Your task to perform on an android device: turn pop-ups on in chrome Image 0: 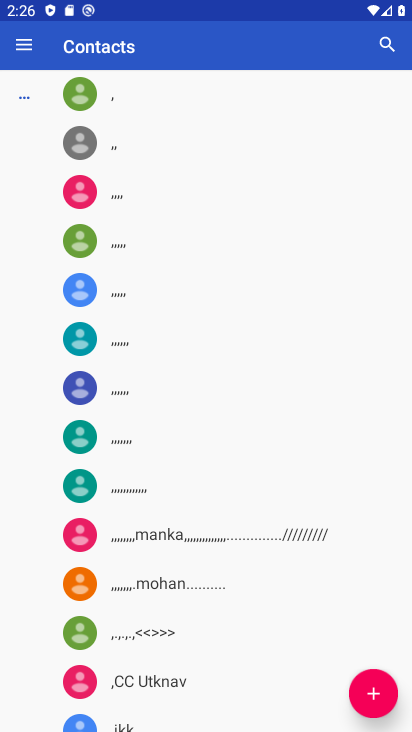
Step 0: press home button
Your task to perform on an android device: turn pop-ups on in chrome Image 1: 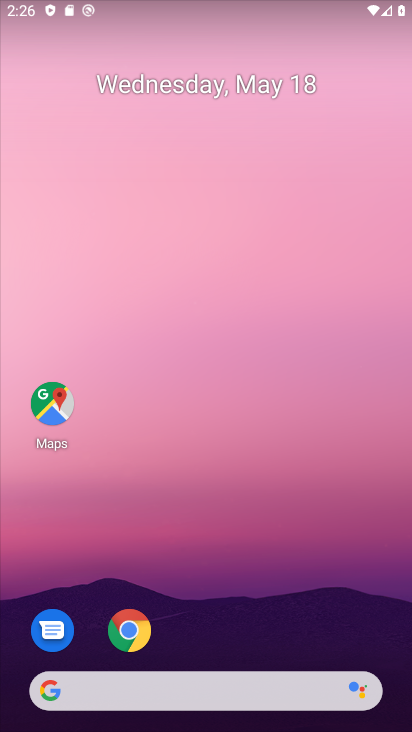
Step 1: click (129, 626)
Your task to perform on an android device: turn pop-ups on in chrome Image 2: 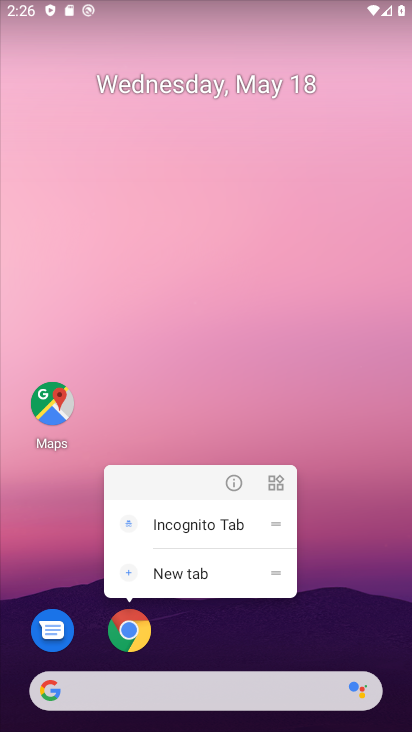
Step 2: click (126, 626)
Your task to perform on an android device: turn pop-ups on in chrome Image 3: 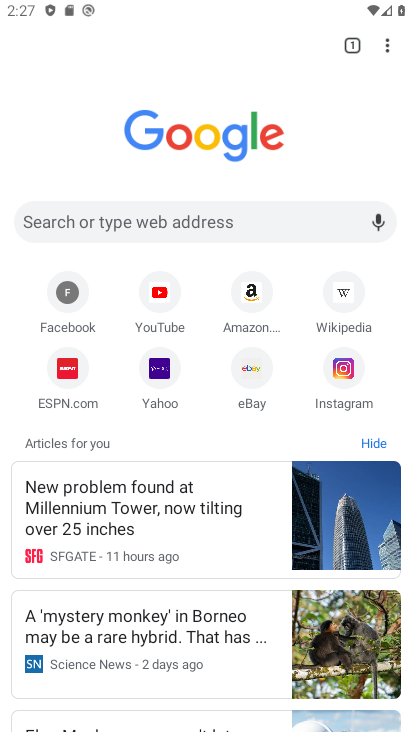
Step 3: click (387, 40)
Your task to perform on an android device: turn pop-ups on in chrome Image 4: 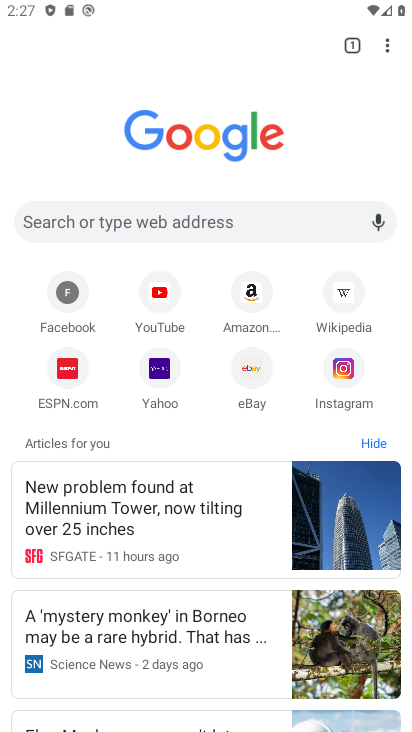
Step 4: click (386, 37)
Your task to perform on an android device: turn pop-ups on in chrome Image 5: 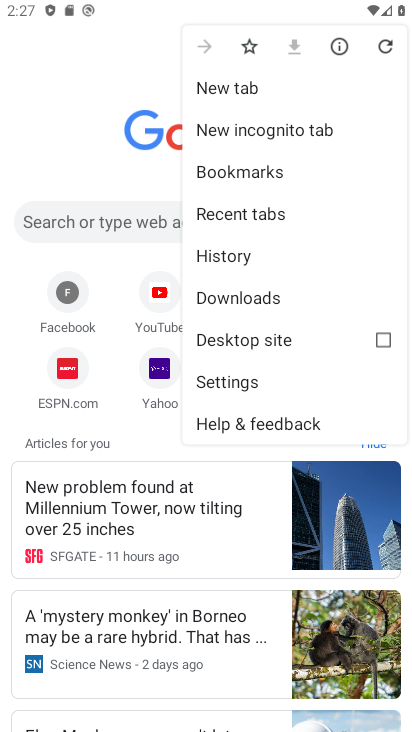
Step 5: click (260, 374)
Your task to perform on an android device: turn pop-ups on in chrome Image 6: 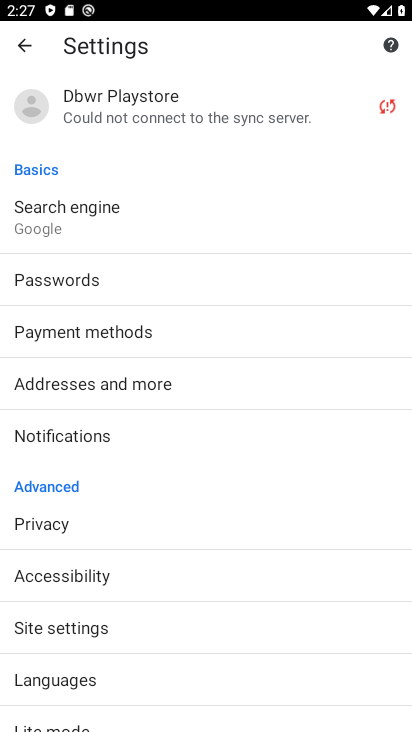
Step 6: click (125, 626)
Your task to perform on an android device: turn pop-ups on in chrome Image 7: 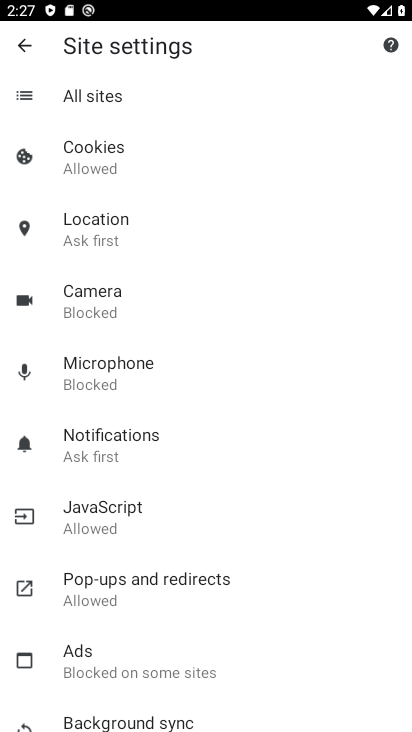
Step 7: click (157, 573)
Your task to perform on an android device: turn pop-ups on in chrome Image 8: 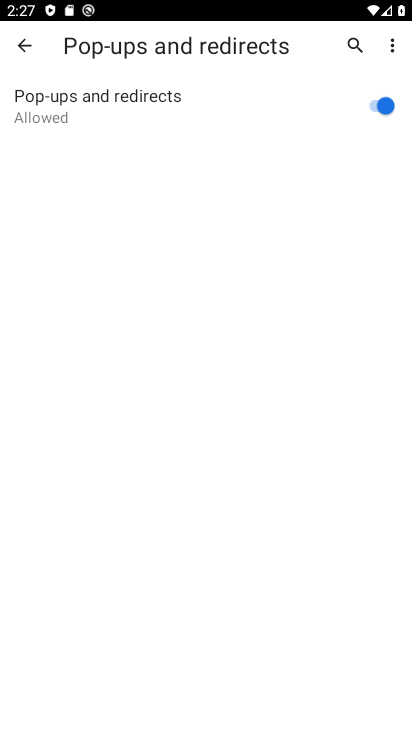
Step 8: task complete